Your task to perform on an android device: Go to location settings Image 0: 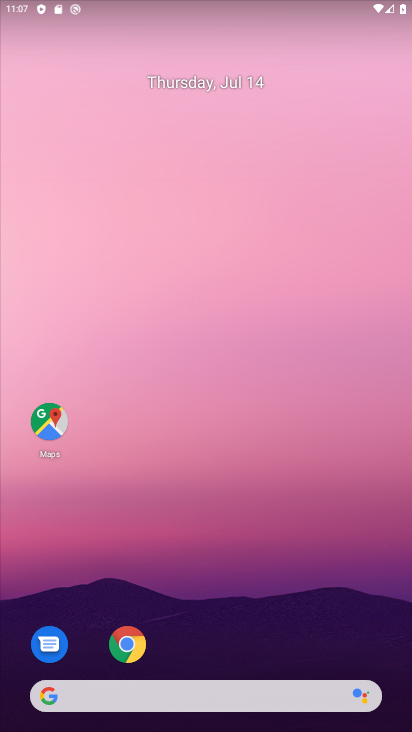
Step 0: drag from (214, 670) to (272, 75)
Your task to perform on an android device: Go to location settings Image 1: 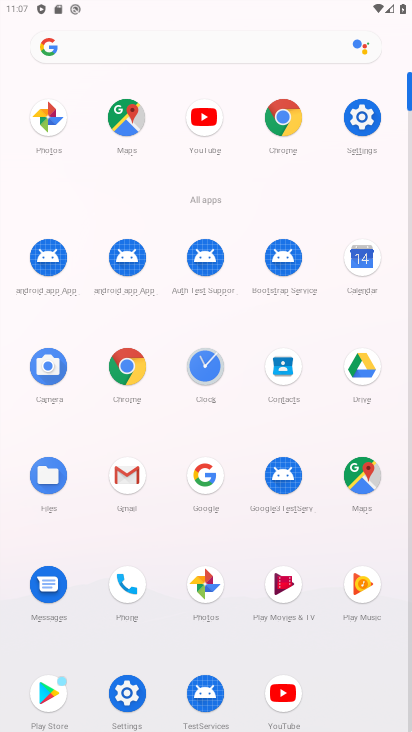
Step 1: click (123, 695)
Your task to perform on an android device: Go to location settings Image 2: 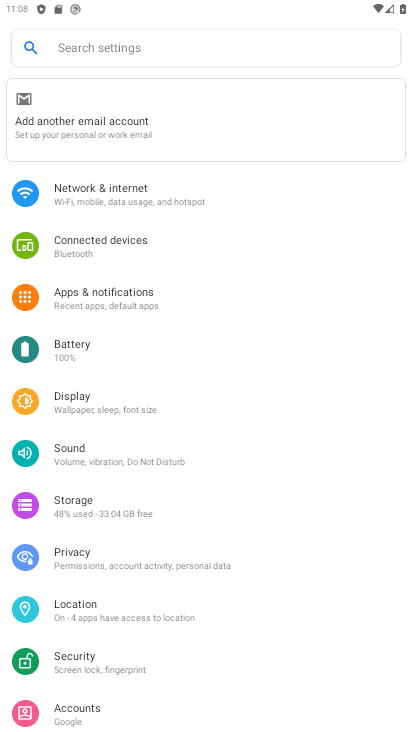
Step 2: click (115, 612)
Your task to perform on an android device: Go to location settings Image 3: 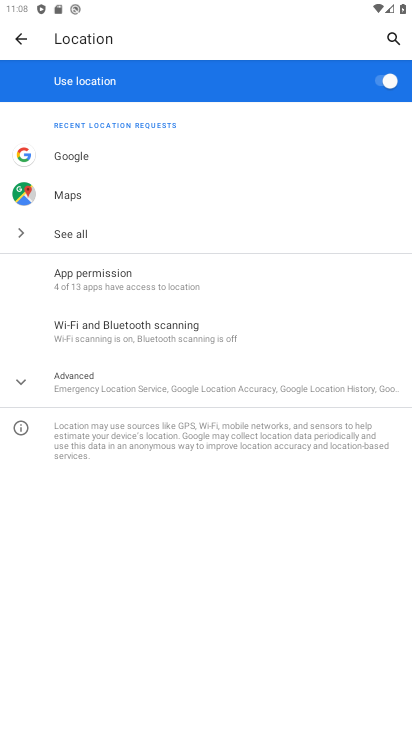
Step 3: task complete